Your task to perform on an android device: allow notifications from all sites in the chrome app Image 0: 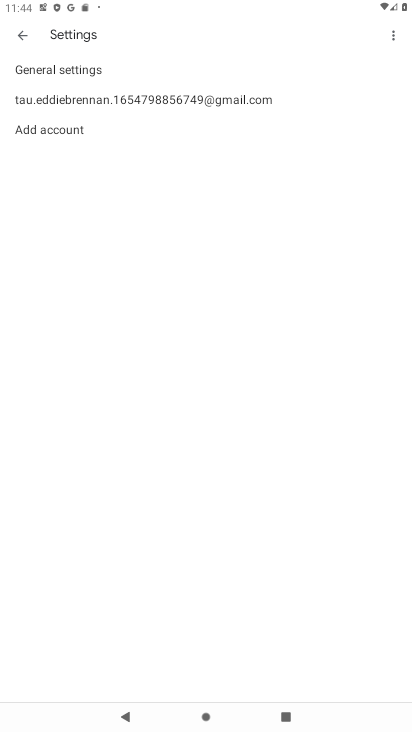
Step 0: press home button
Your task to perform on an android device: allow notifications from all sites in the chrome app Image 1: 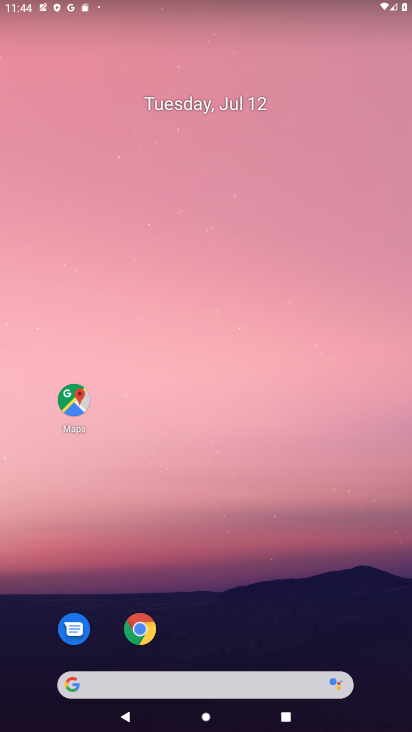
Step 1: drag from (314, 635) to (183, 91)
Your task to perform on an android device: allow notifications from all sites in the chrome app Image 2: 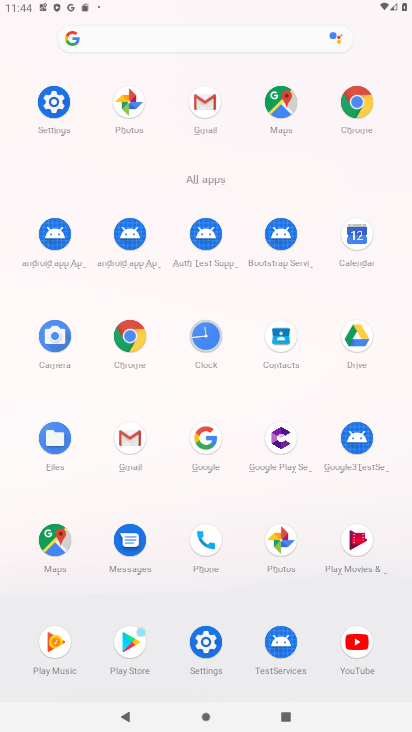
Step 2: click (355, 97)
Your task to perform on an android device: allow notifications from all sites in the chrome app Image 3: 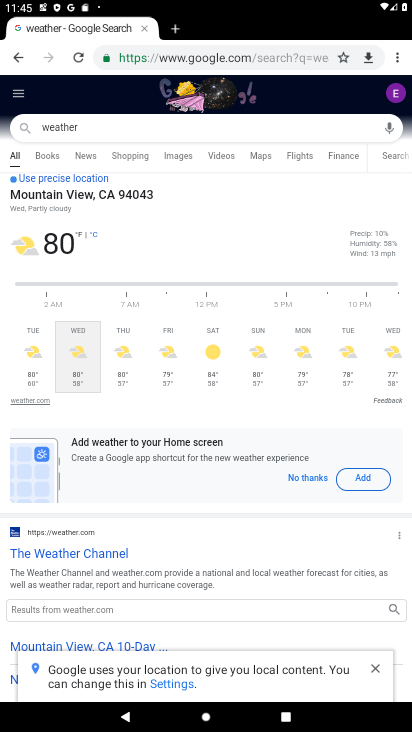
Step 3: drag from (402, 47) to (285, 357)
Your task to perform on an android device: allow notifications from all sites in the chrome app Image 4: 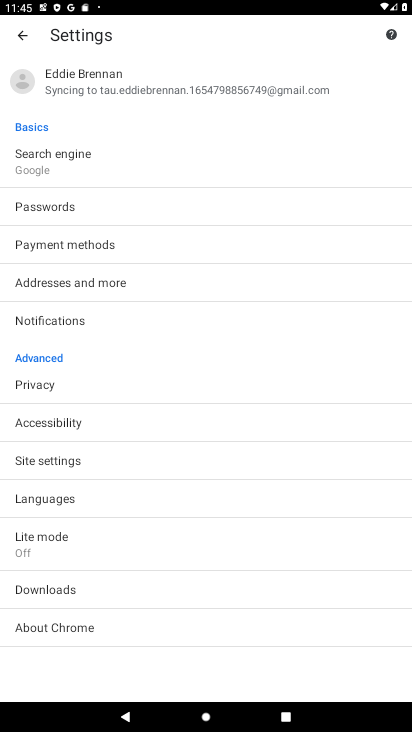
Step 4: click (73, 459)
Your task to perform on an android device: allow notifications from all sites in the chrome app Image 5: 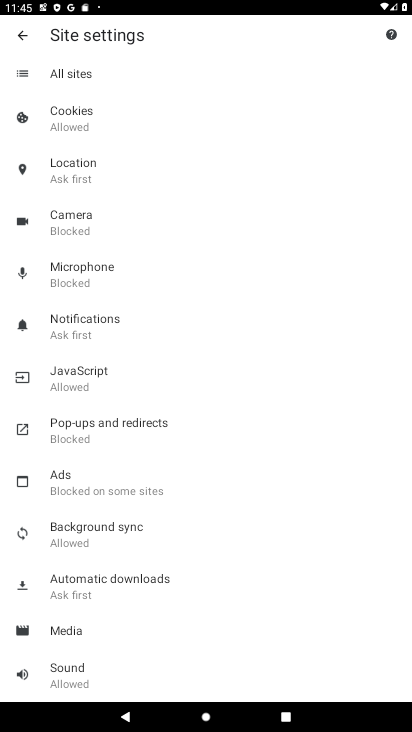
Step 5: click (74, 331)
Your task to perform on an android device: allow notifications from all sites in the chrome app Image 6: 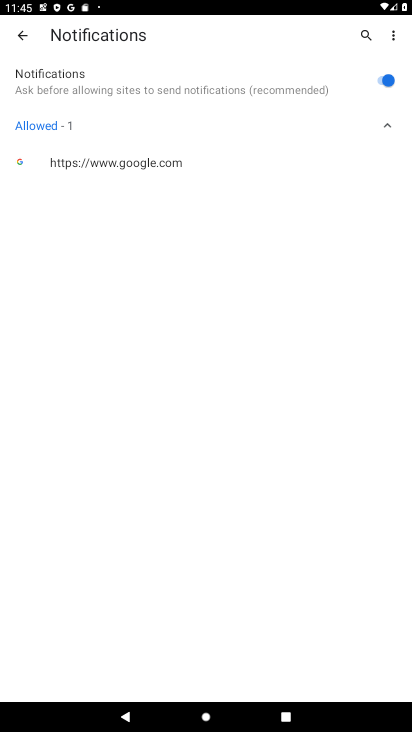
Step 6: task complete